Your task to perform on an android device: refresh tabs in the chrome app Image 0: 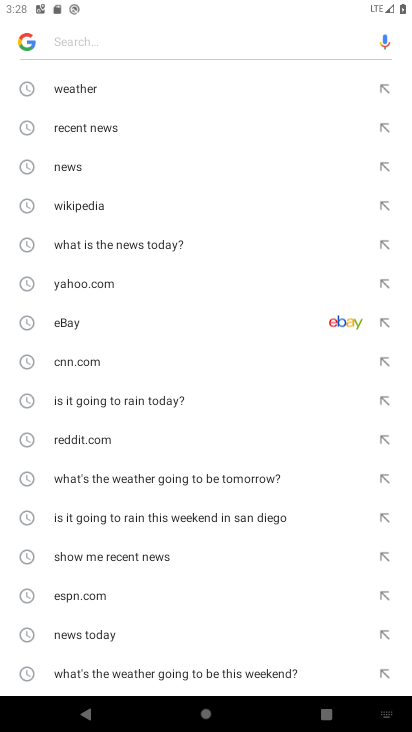
Step 0: press home button
Your task to perform on an android device: refresh tabs in the chrome app Image 1: 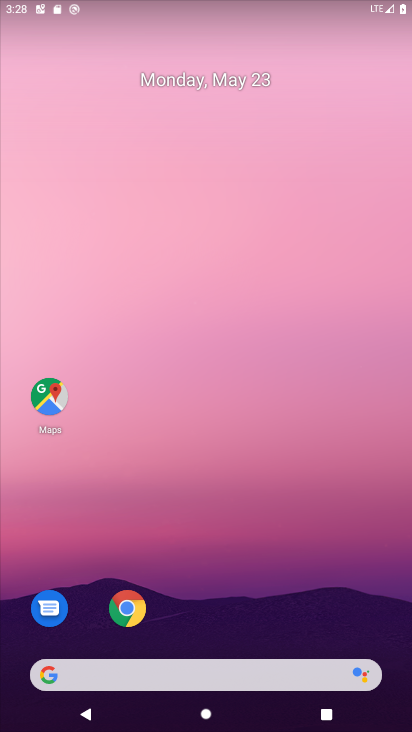
Step 1: click (132, 625)
Your task to perform on an android device: refresh tabs in the chrome app Image 2: 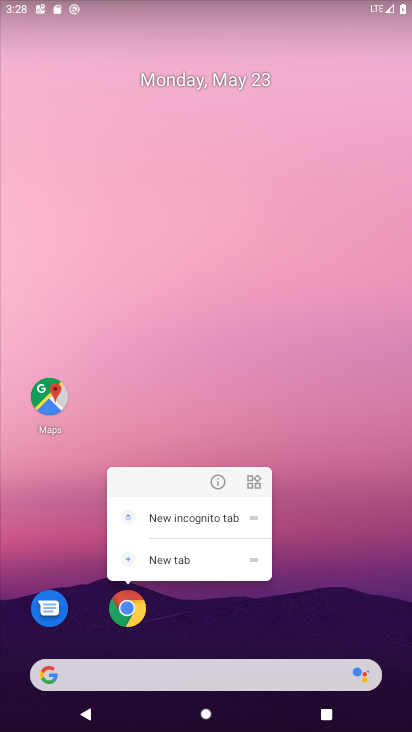
Step 2: click (132, 622)
Your task to perform on an android device: refresh tabs in the chrome app Image 3: 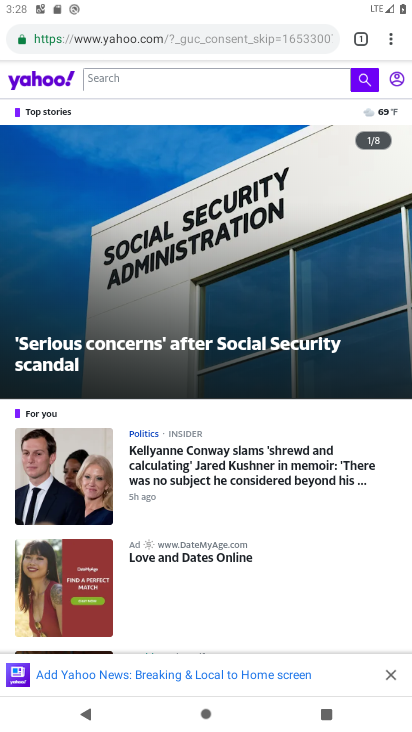
Step 3: click (396, 36)
Your task to perform on an android device: refresh tabs in the chrome app Image 4: 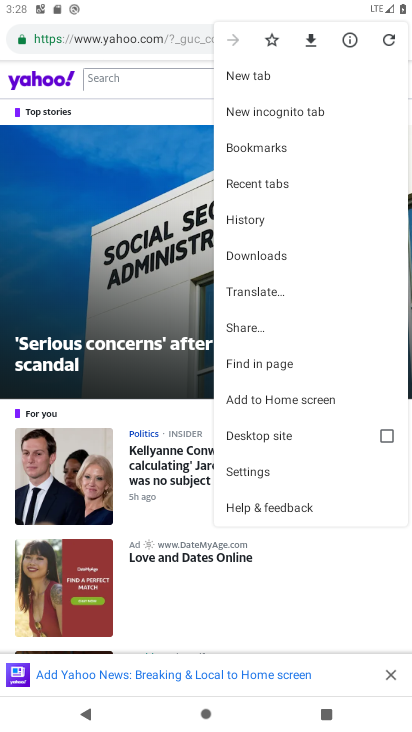
Step 4: click (386, 36)
Your task to perform on an android device: refresh tabs in the chrome app Image 5: 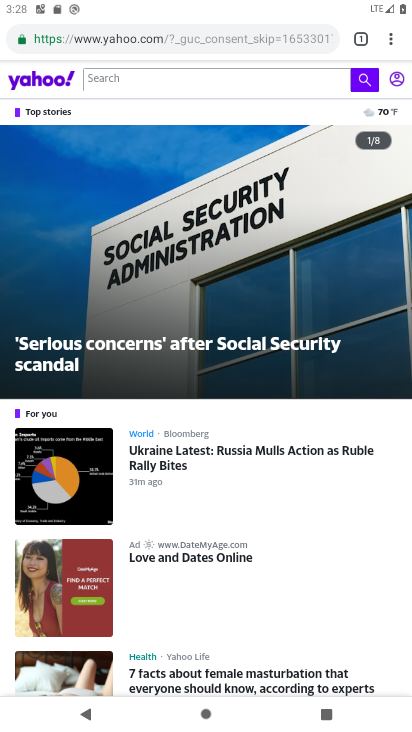
Step 5: task complete